Your task to perform on an android device: turn off airplane mode Image 0: 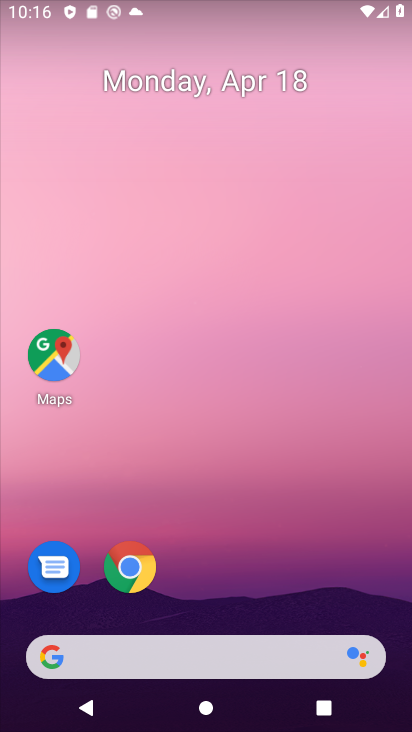
Step 0: drag from (225, 526) to (226, 91)
Your task to perform on an android device: turn off airplane mode Image 1: 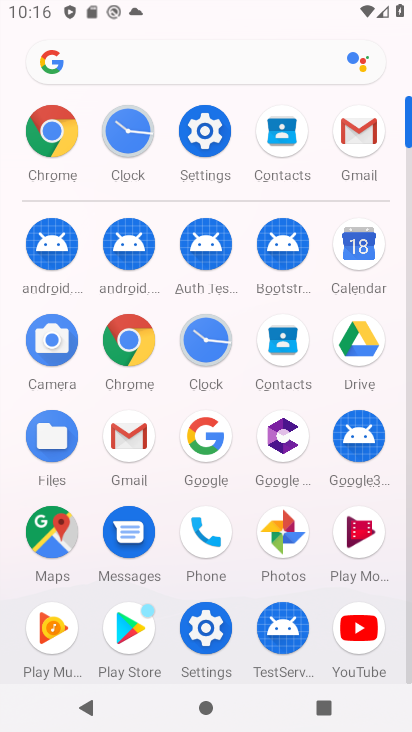
Step 1: click (205, 122)
Your task to perform on an android device: turn off airplane mode Image 2: 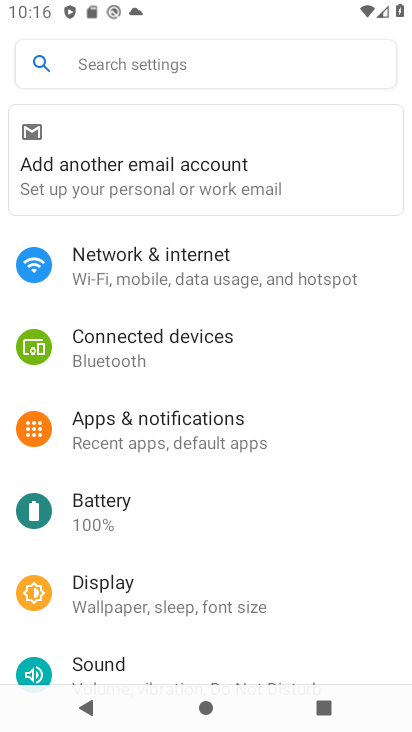
Step 2: click (185, 270)
Your task to perform on an android device: turn off airplane mode Image 3: 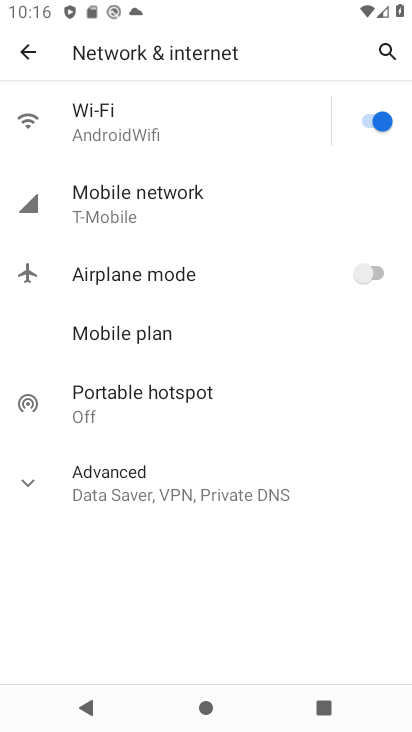
Step 3: task complete